Your task to perform on an android device: Search for Mexican restaurants on Maps Image 0: 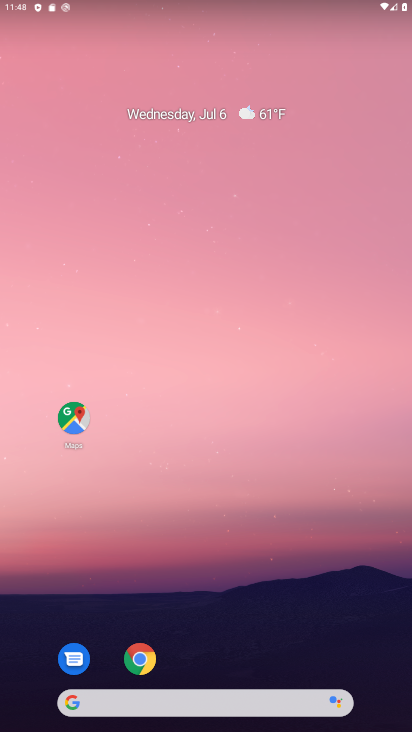
Step 0: click (81, 421)
Your task to perform on an android device: Search for Mexican restaurants on Maps Image 1: 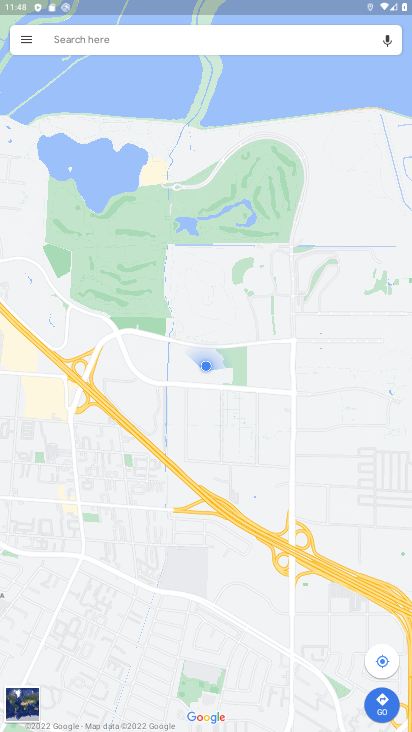
Step 1: click (271, 33)
Your task to perform on an android device: Search for Mexican restaurants on Maps Image 2: 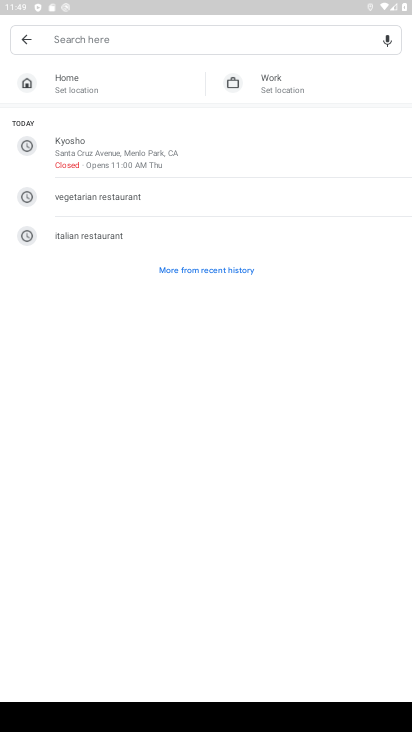
Step 2: type "mexican restaurants"
Your task to perform on an android device: Search for Mexican restaurants on Maps Image 3: 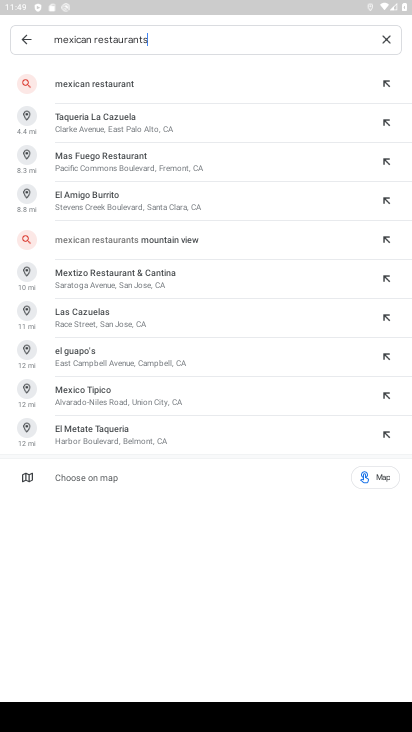
Step 3: click (127, 89)
Your task to perform on an android device: Search for Mexican restaurants on Maps Image 4: 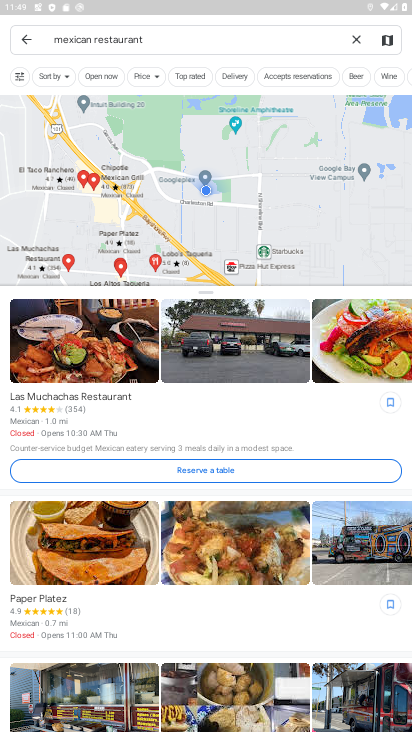
Step 4: task complete